Your task to perform on an android device: uninstall "Spotify" Image 0: 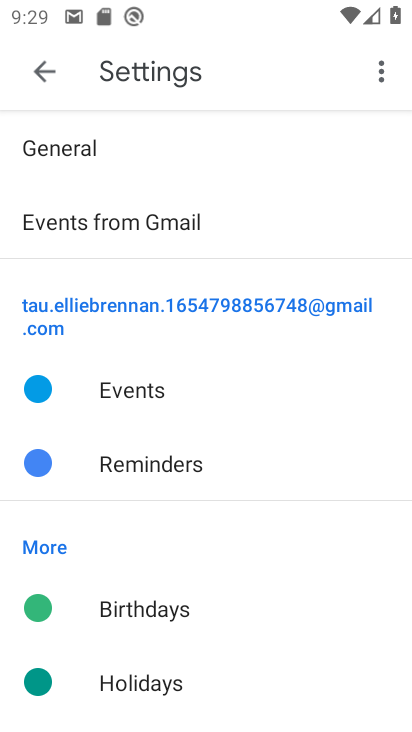
Step 0: press home button
Your task to perform on an android device: uninstall "Spotify" Image 1: 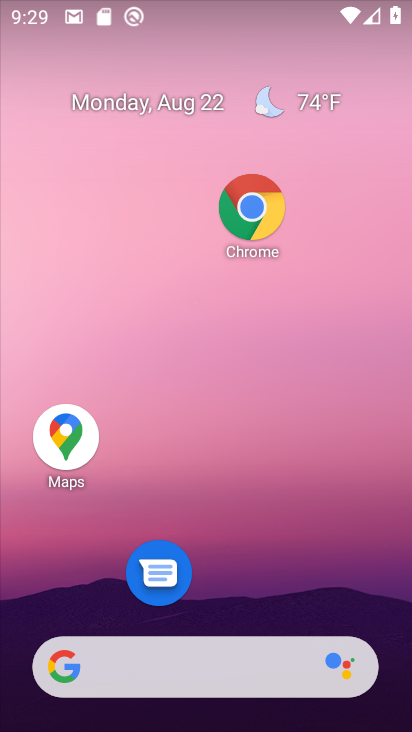
Step 1: drag from (249, 565) to (286, 96)
Your task to perform on an android device: uninstall "Spotify" Image 2: 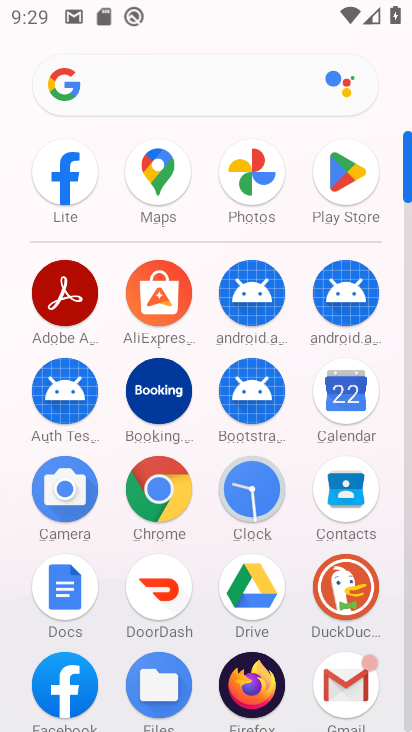
Step 2: click (344, 194)
Your task to perform on an android device: uninstall "Spotify" Image 3: 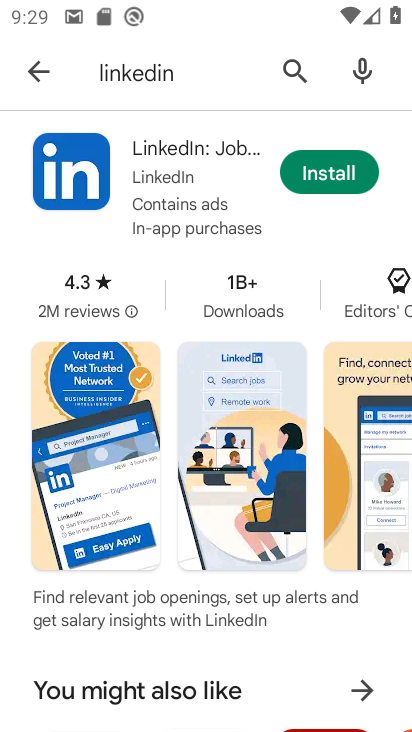
Step 3: click (177, 85)
Your task to perform on an android device: uninstall "Spotify" Image 4: 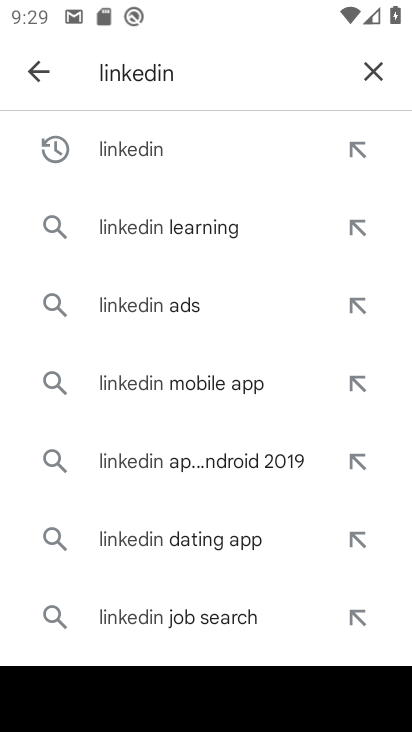
Step 4: click (367, 72)
Your task to perform on an android device: uninstall "Spotify" Image 5: 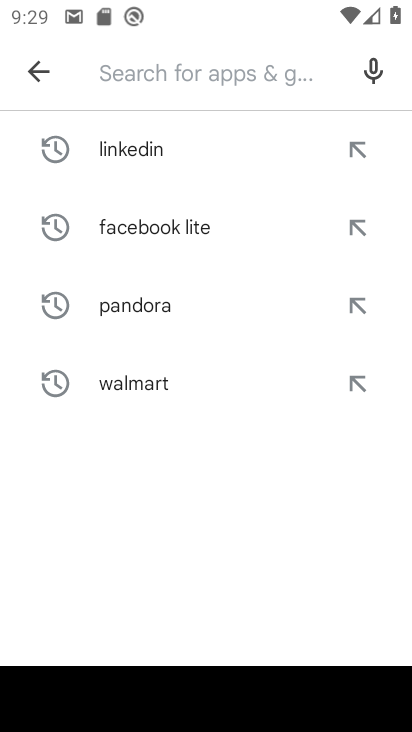
Step 5: type "Spotify"
Your task to perform on an android device: uninstall "Spotify" Image 6: 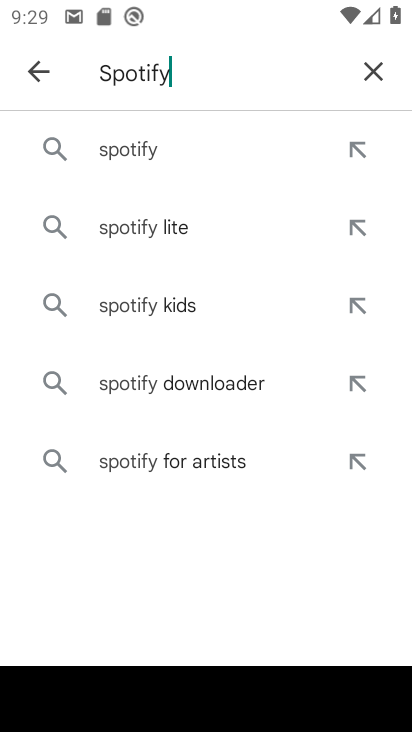
Step 6: click (166, 147)
Your task to perform on an android device: uninstall "Spotify" Image 7: 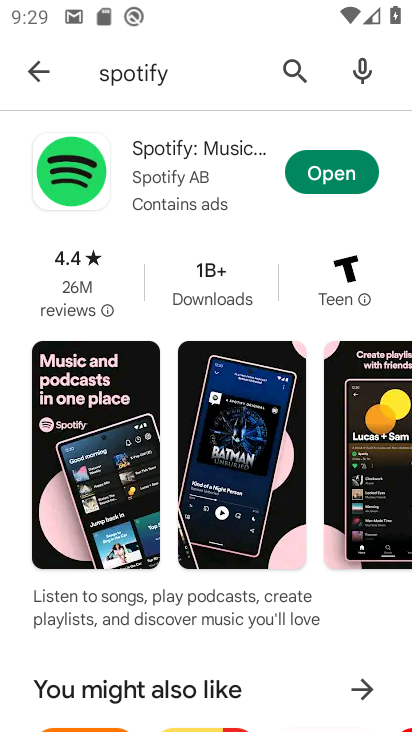
Step 7: click (133, 166)
Your task to perform on an android device: uninstall "Spotify" Image 8: 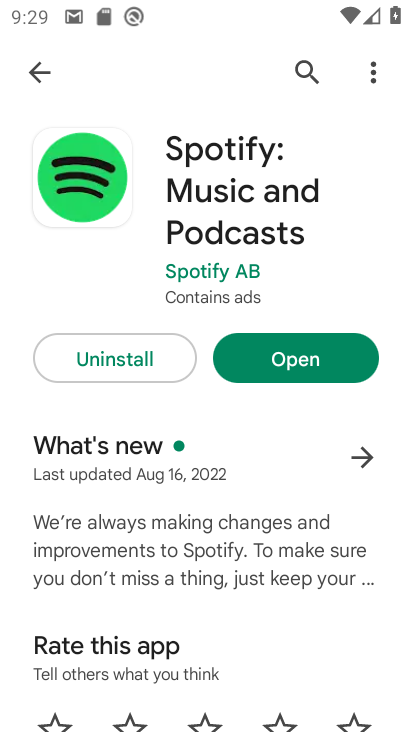
Step 8: click (106, 358)
Your task to perform on an android device: uninstall "Spotify" Image 9: 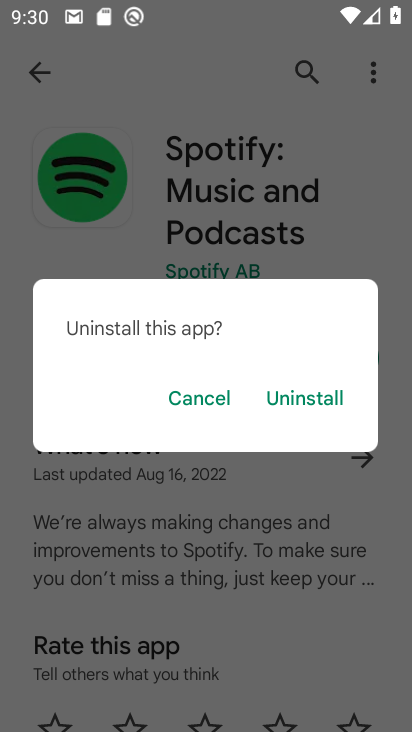
Step 9: click (301, 399)
Your task to perform on an android device: uninstall "Spotify" Image 10: 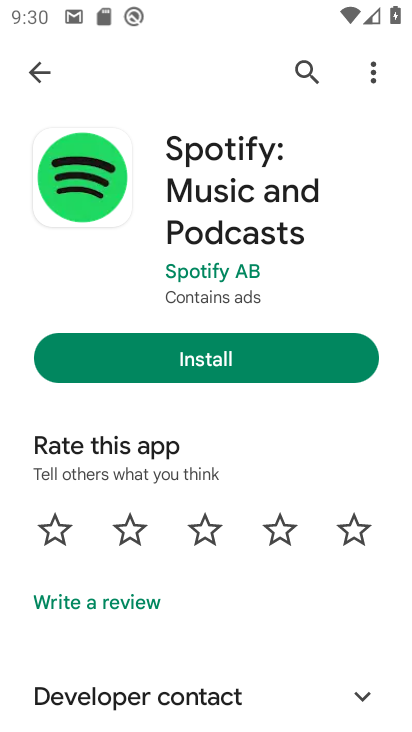
Step 10: task complete